Your task to perform on an android device: Open Android settings Image 0: 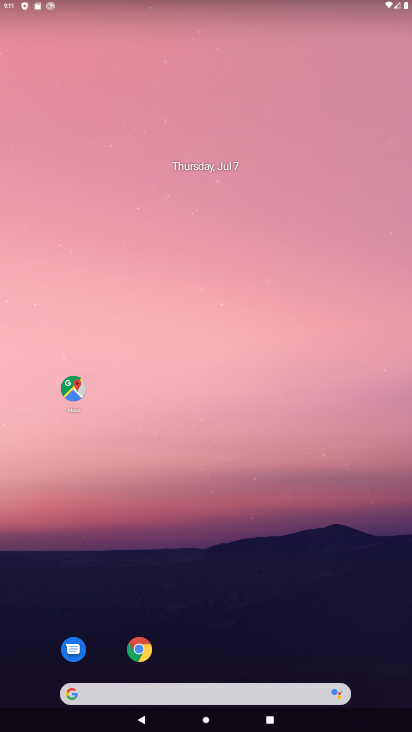
Step 0: drag from (231, 563) to (256, 194)
Your task to perform on an android device: Open Android settings Image 1: 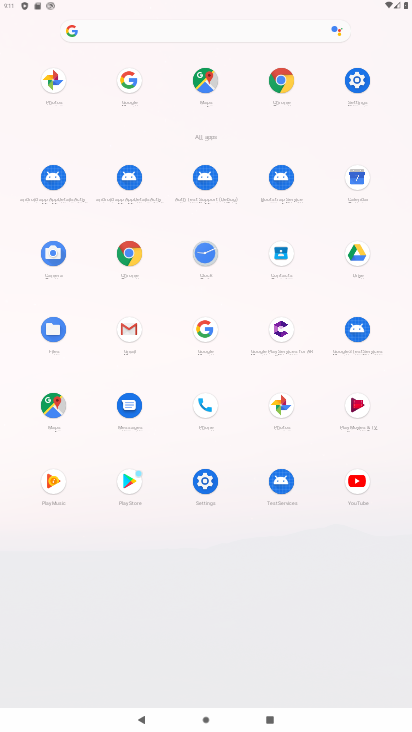
Step 1: click (360, 78)
Your task to perform on an android device: Open Android settings Image 2: 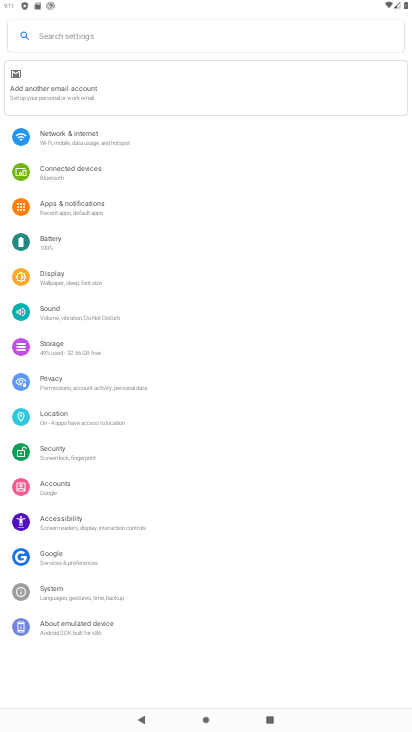
Step 2: task complete